Your task to perform on an android device: Clear all items from cart on walmart.com. Add "logitech g903" to the cart on walmart.com, then select checkout. Image 0: 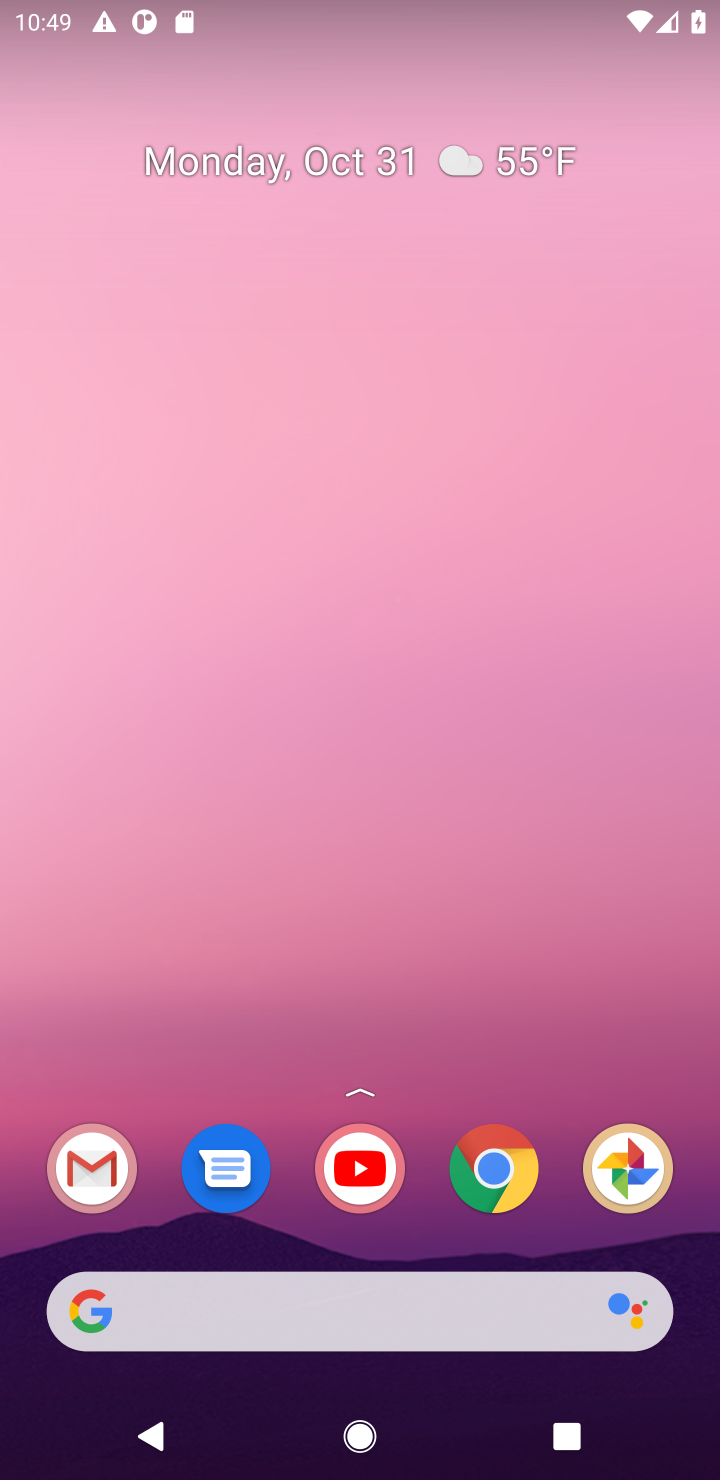
Step 0: click (501, 1178)
Your task to perform on an android device: Clear all items from cart on walmart.com. Add "logitech g903" to the cart on walmart.com, then select checkout. Image 1: 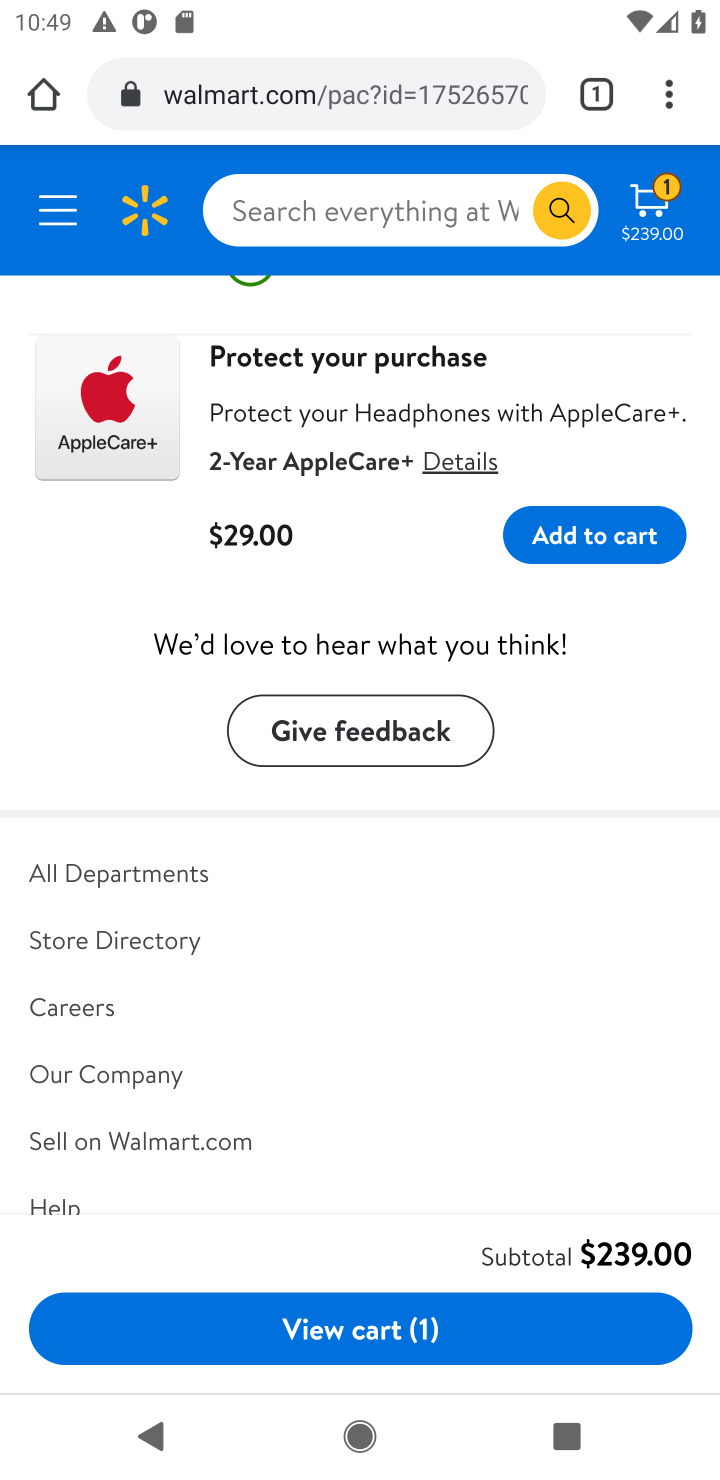
Step 1: click (654, 205)
Your task to perform on an android device: Clear all items from cart on walmart.com. Add "logitech g903" to the cart on walmart.com, then select checkout. Image 2: 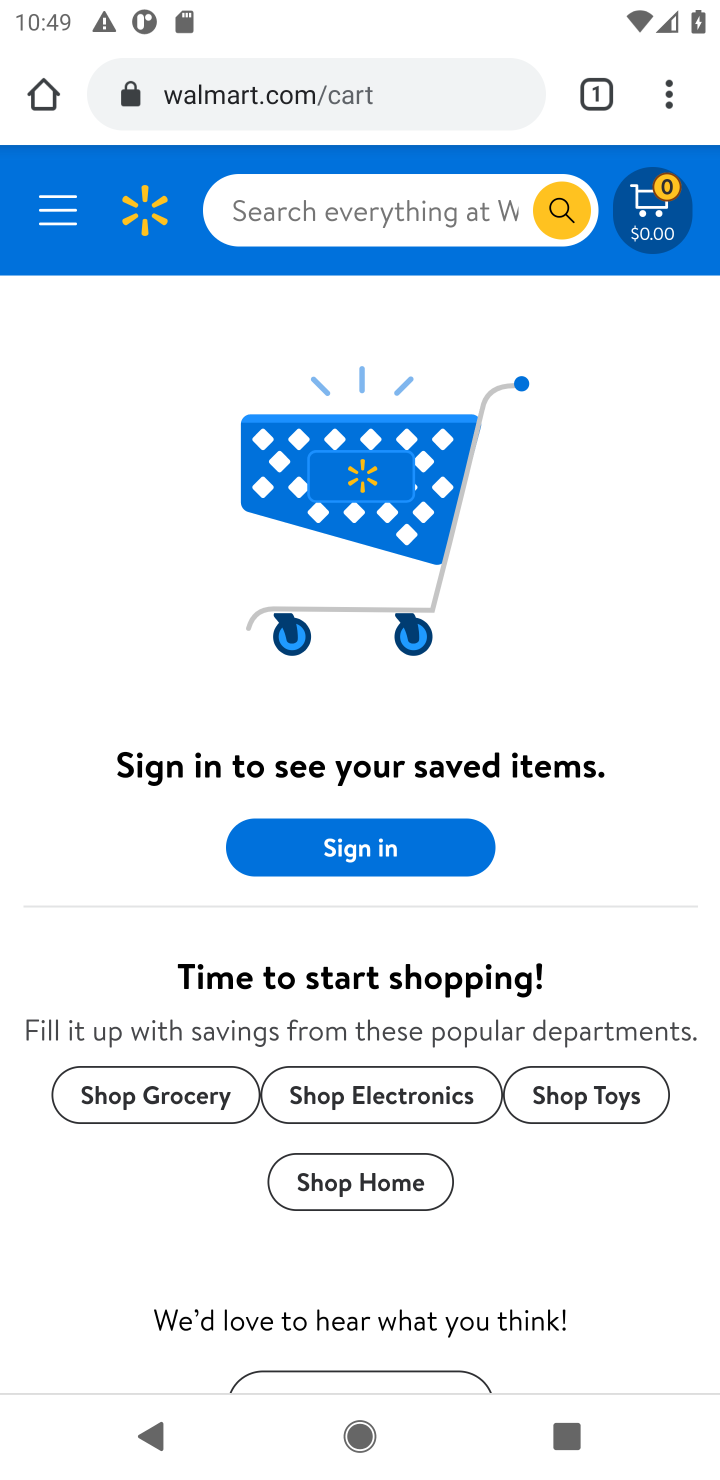
Step 2: click (409, 203)
Your task to perform on an android device: Clear all items from cart on walmart.com. Add "logitech g903" to the cart on walmart.com, then select checkout. Image 3: 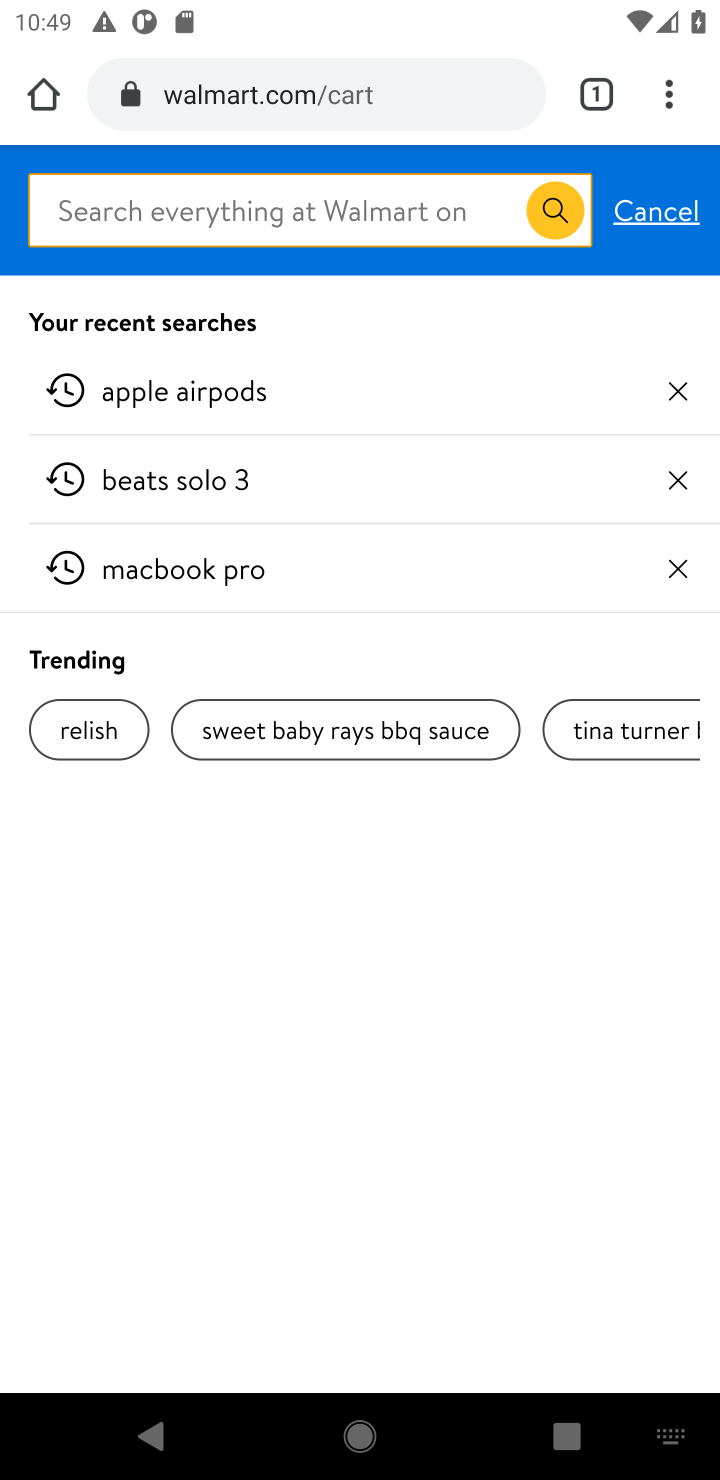
Step 3: type "logitech g903"
Your task to perform on an android device: Clear all items from cart on walmart.com. Add "logitech g903" to the cart on walmart.com, then select checkout. Image 4: 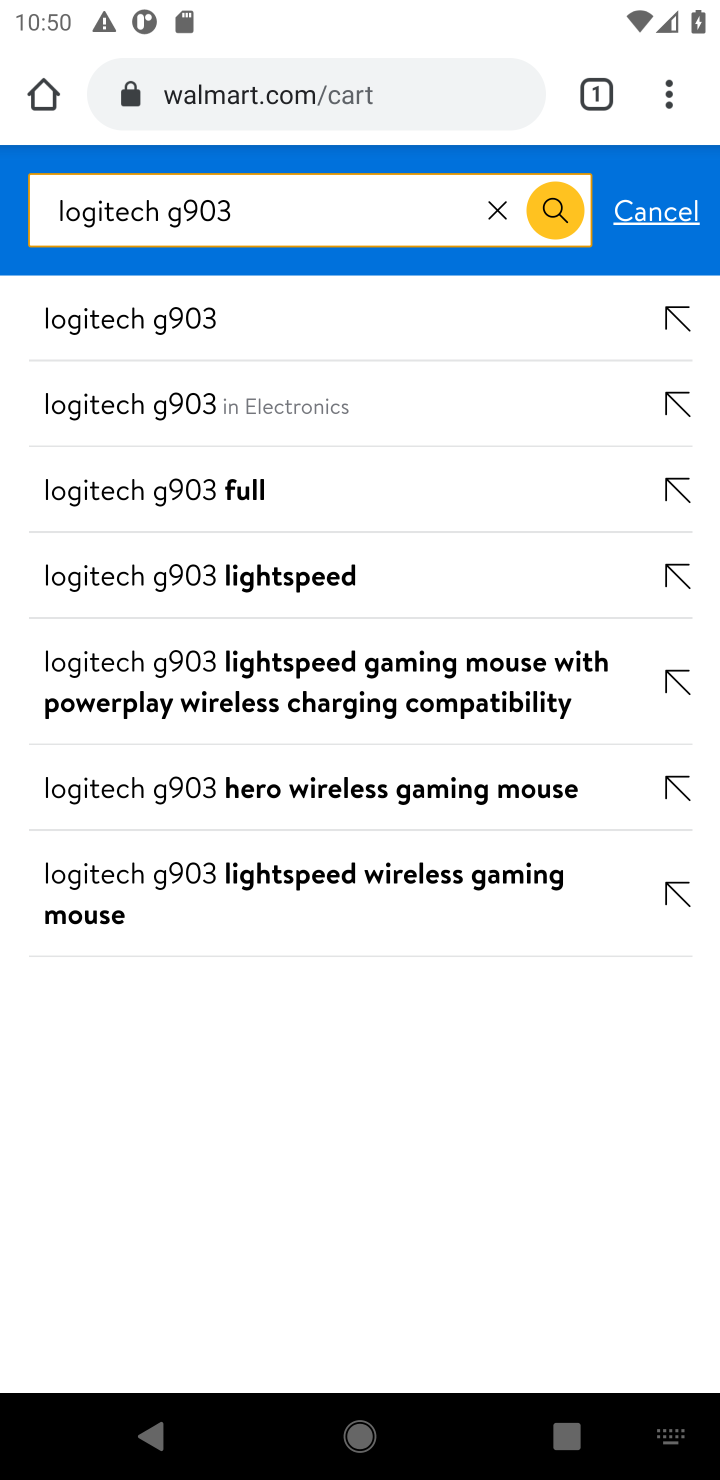
Step 4: press enter
Your task to perform on an android device: Clear all items from cart on walmart.com. Add "logitech g903" to the cart on walmart.com, then select checkout. Image 5: 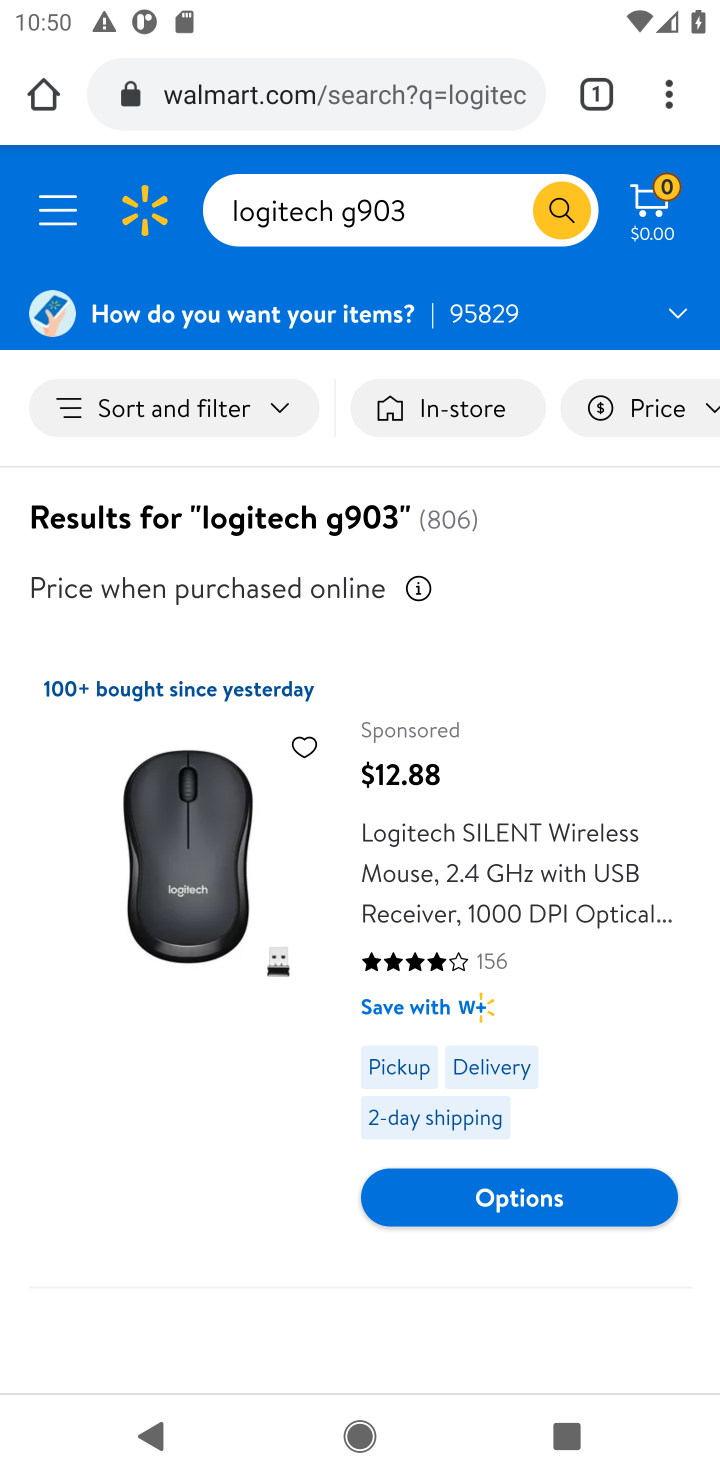
Step 5: drag from (550, 786) to (543, 473)
Your task to perform on an android device: Clear all items from cart on walmart.com. Add "logitech g903" to the cart on walmart.com, then select checkout. Image 6: 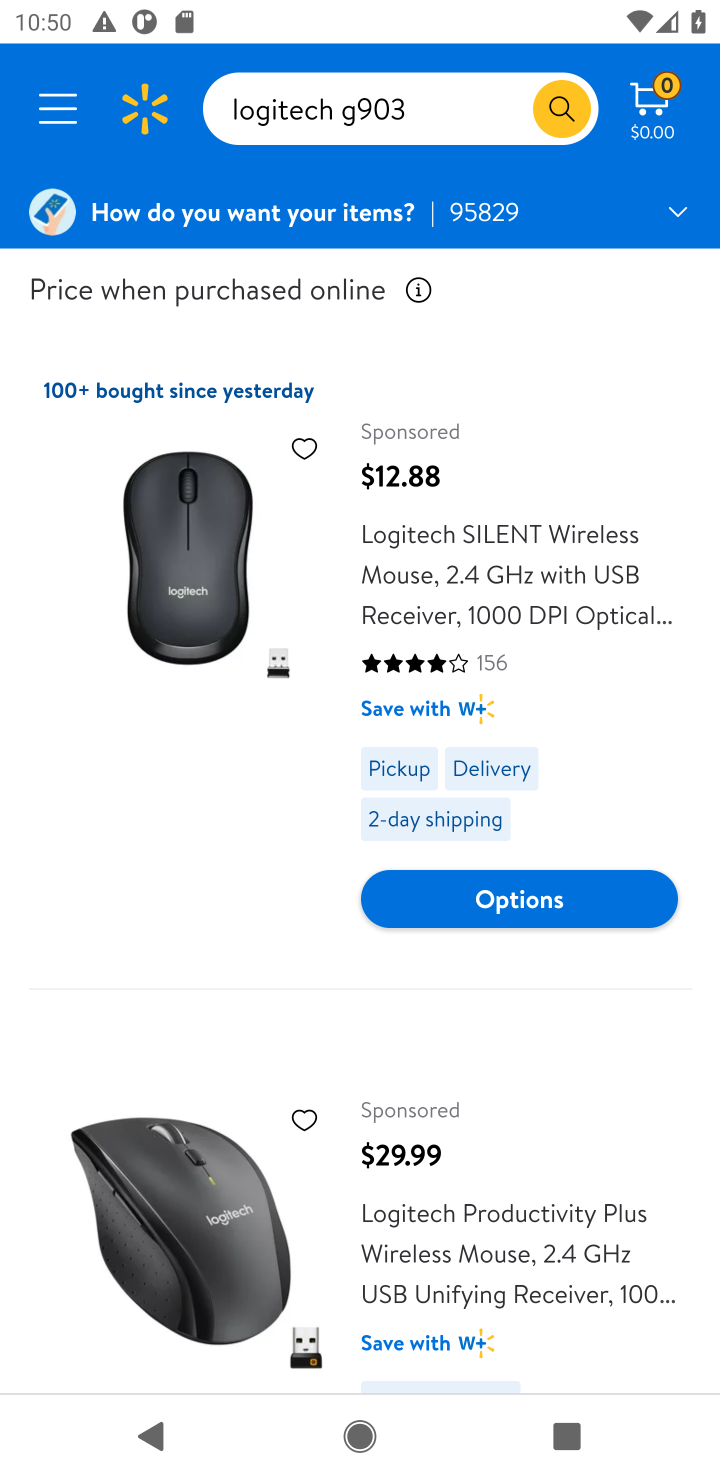
Step 6: click (225, 544)
Your task to perform on an android device: Clear all items from cart on walmart.com. Add "logitech g903" to the cart on walmart.com, then select checkout. Image 7: 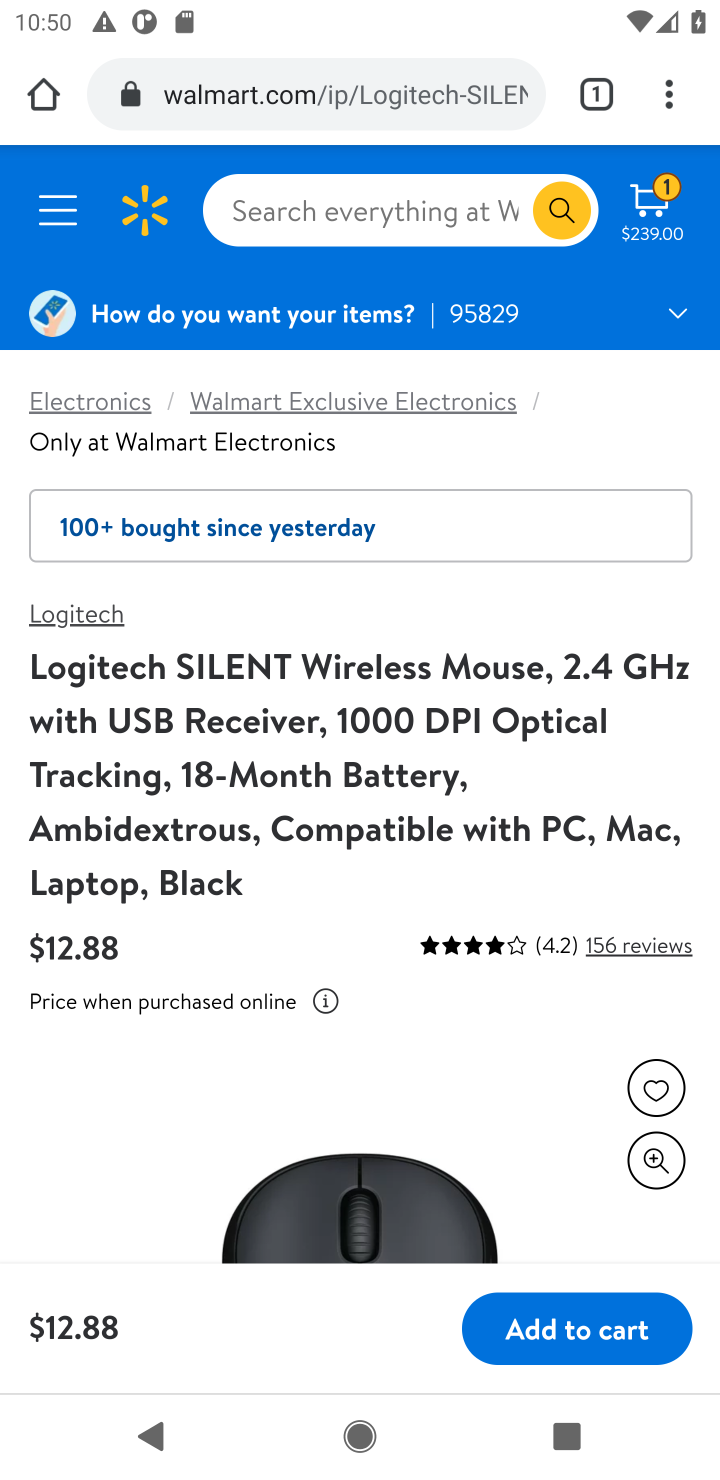
Step 7: press back button
Your task to perform on an android device: Clear all items from cart on walmart.com. Add "logitech g903" to the cart on walmart.com, then select checkout. Image 8: 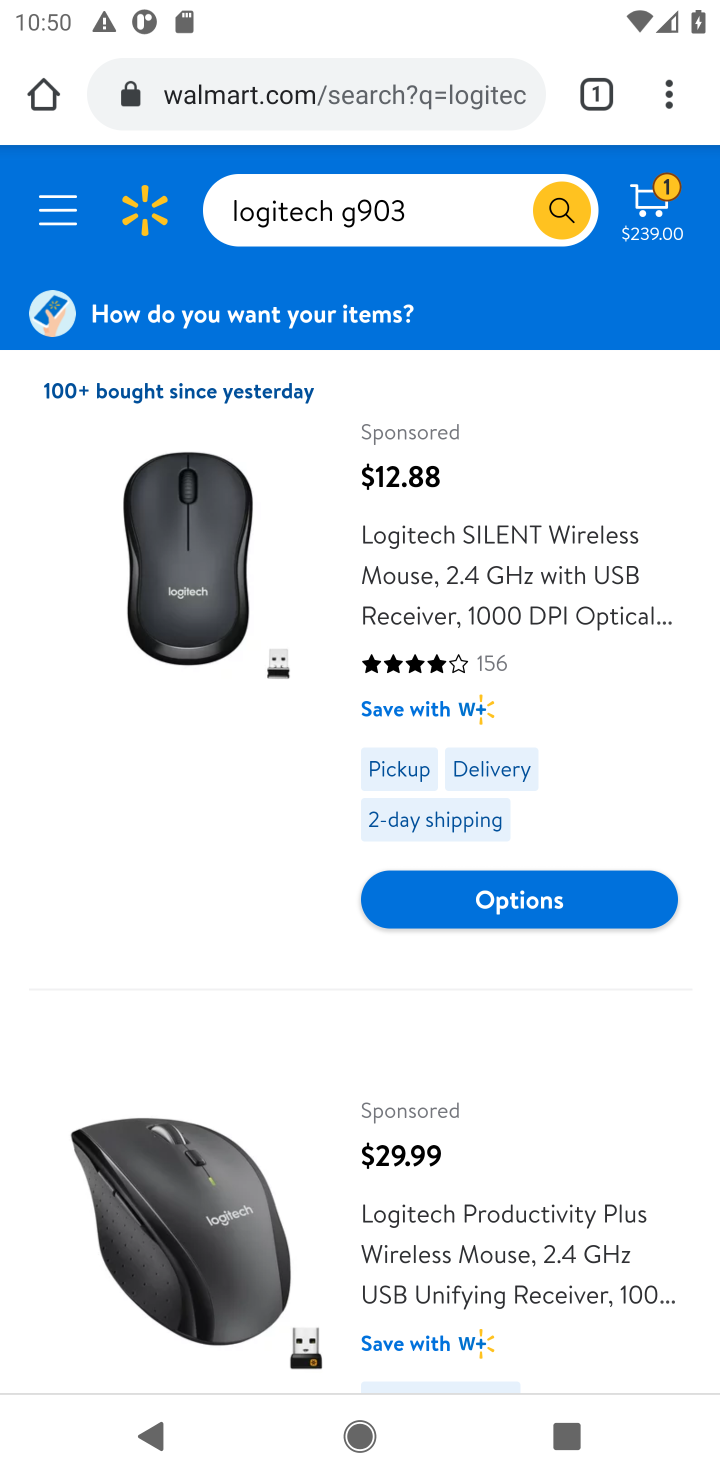
Step 8: drag from (543, 1082) to (441, 116)
Your task to perform on an android device: Clear all items from cart on walmart.com. Add "logitech g903" to the cart on walmart.com, then select checkout. Image 9: 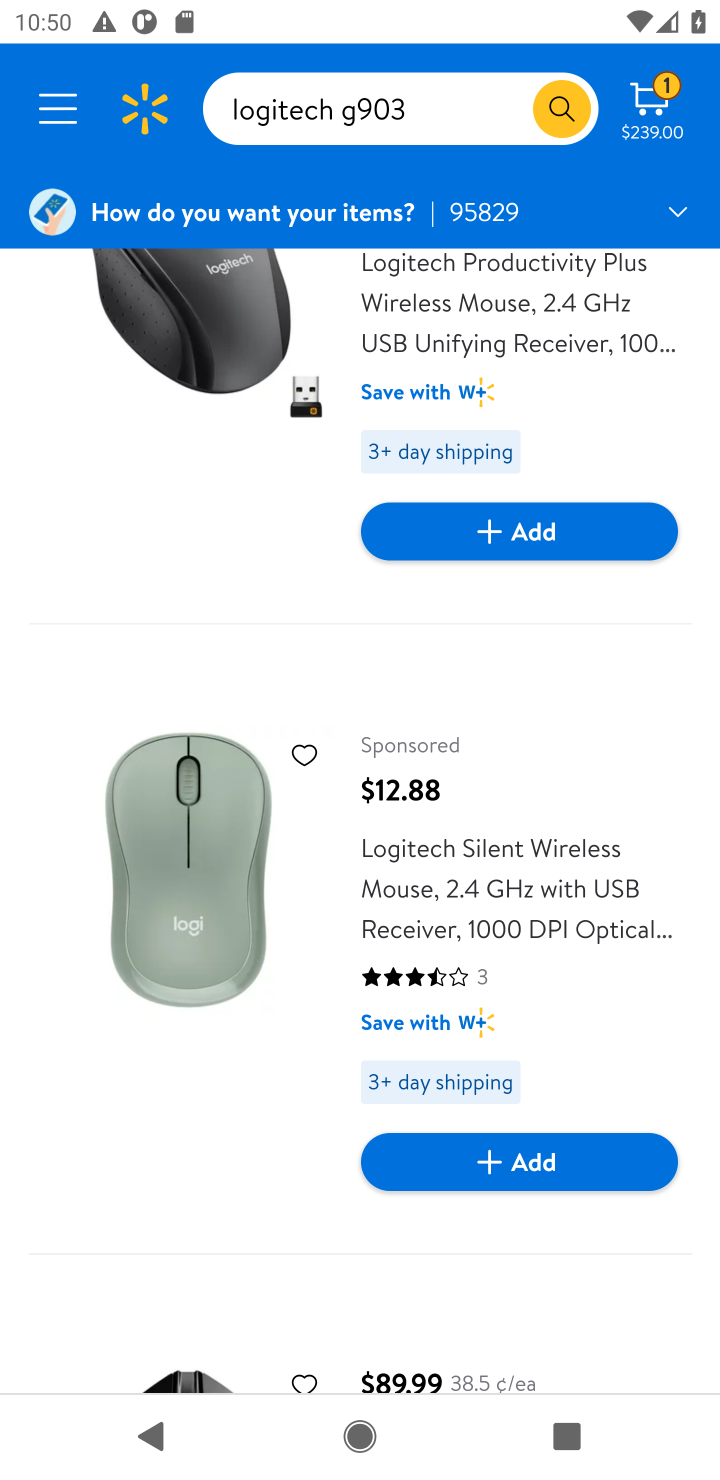
Step 9: drag from (590, 999) to (529, 590)
Your task to perform on an android device: Clear all items from cart on walmart.com. Add "logitech g903" to the cart on walmart.com, then select checkout. Image 10: 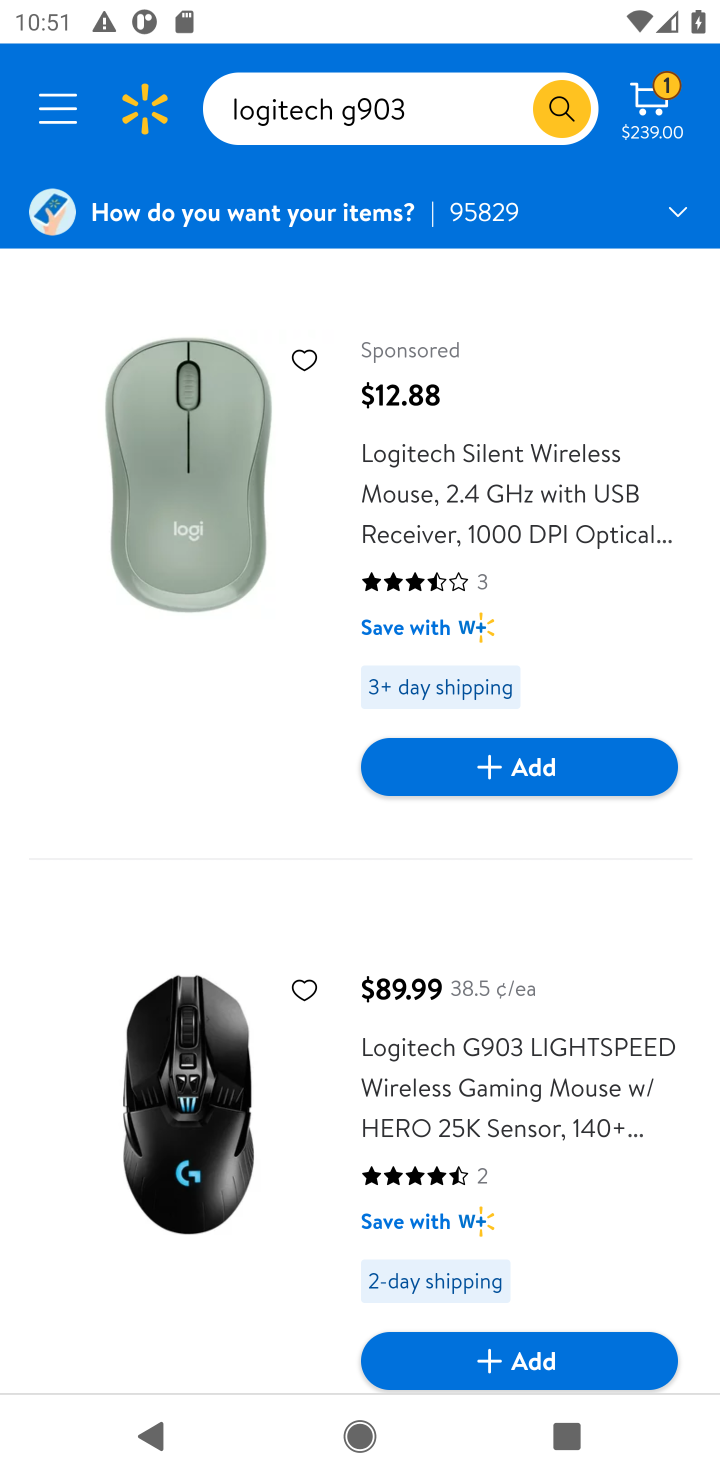
Step 10: click (223, 1121)
Your task to perform on an android device: Clear all items from cart on walmart.com. Add "logitech g903" to the cart on walmart.com, then select checkout. Image 11: 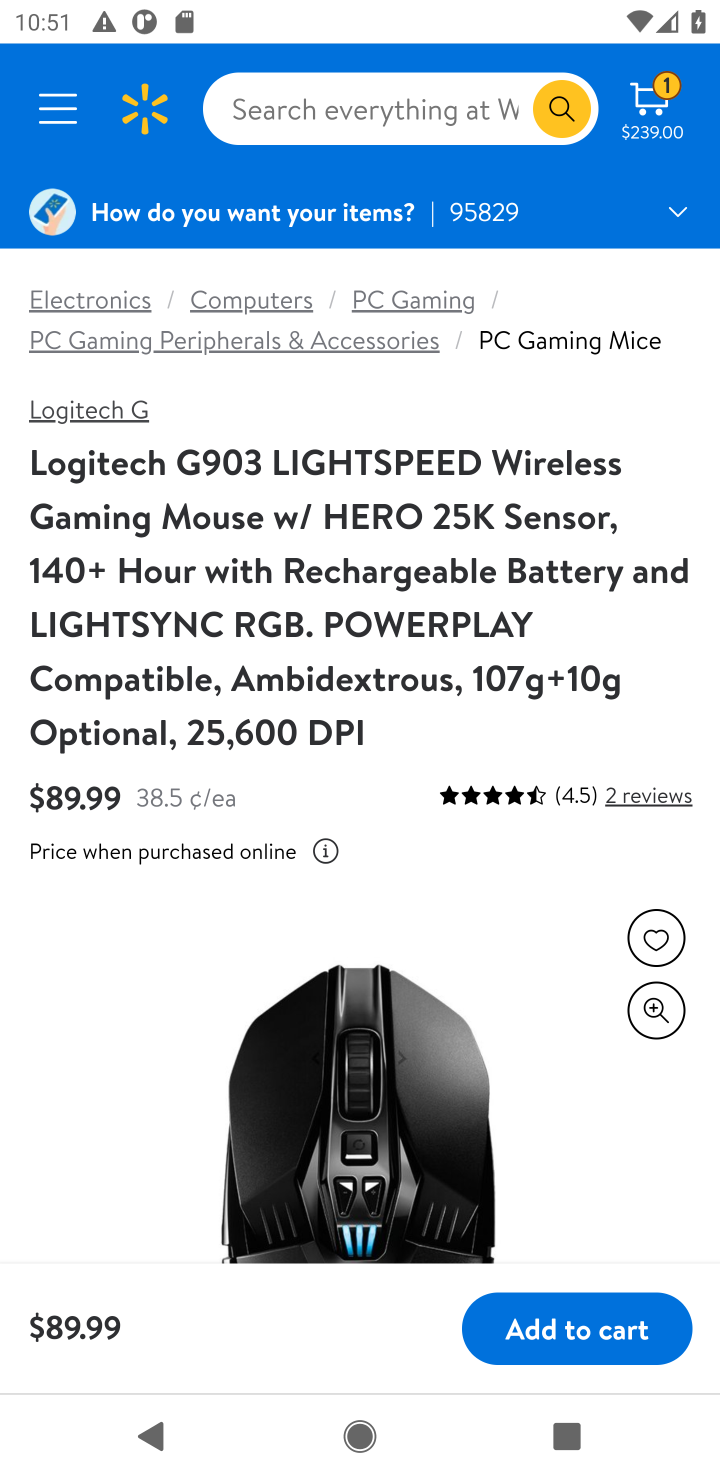
Step 11: click (538, 1327)
Your task to perform on an android device: Clear all items from cart on walmart.com. Add "logitech g903" to the cart on walmart.com, then select checkout. Image 12: 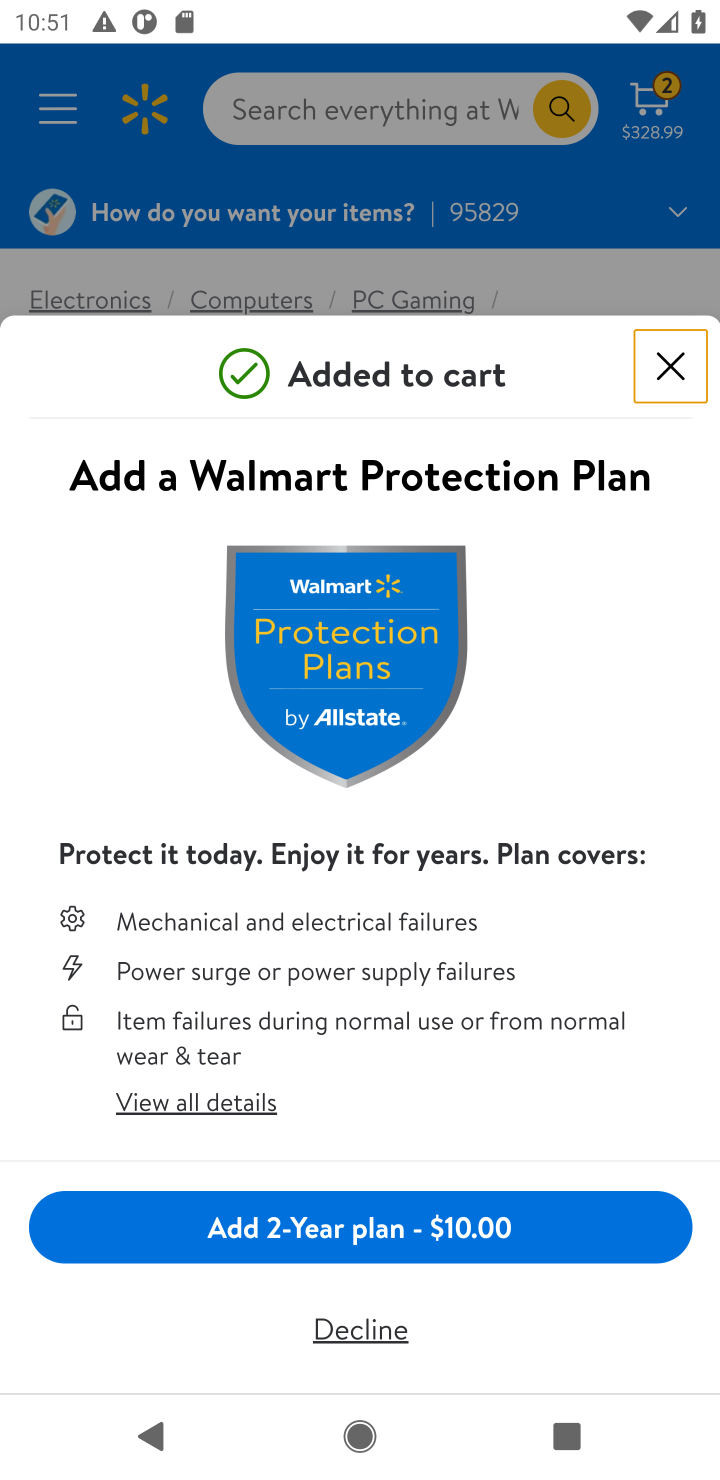
Step 12: click (352, 1327)
Your task to perform on an android device: Clear all items from cart on walmart.com. Add "logitech g903" to the cart on walmart.com, then select checkout. Image 13: 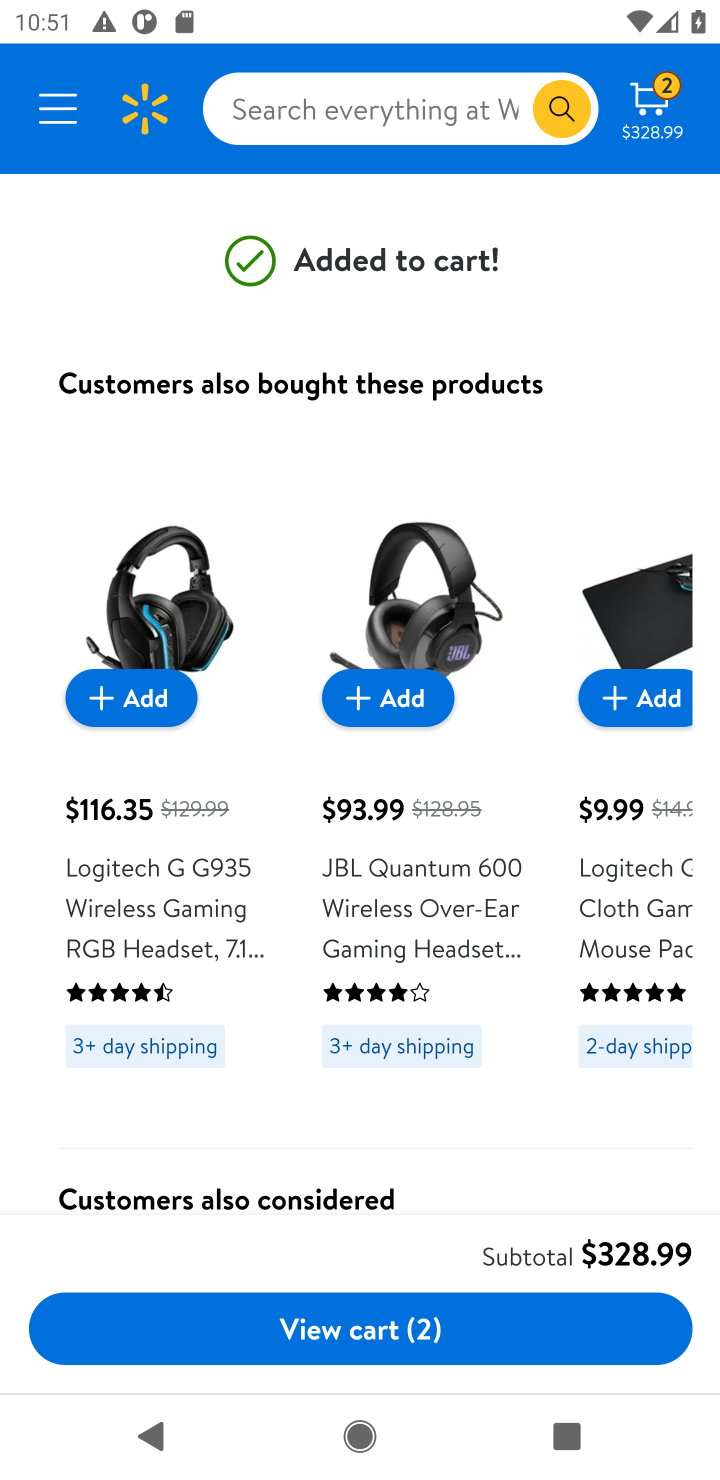
Step 13: click (417, 1329)
Your task to perform on an android device: Clear all items from cart on walmart.com. Add "logitech g903" to the cart on walmart.com, then select checkout. Image 14: 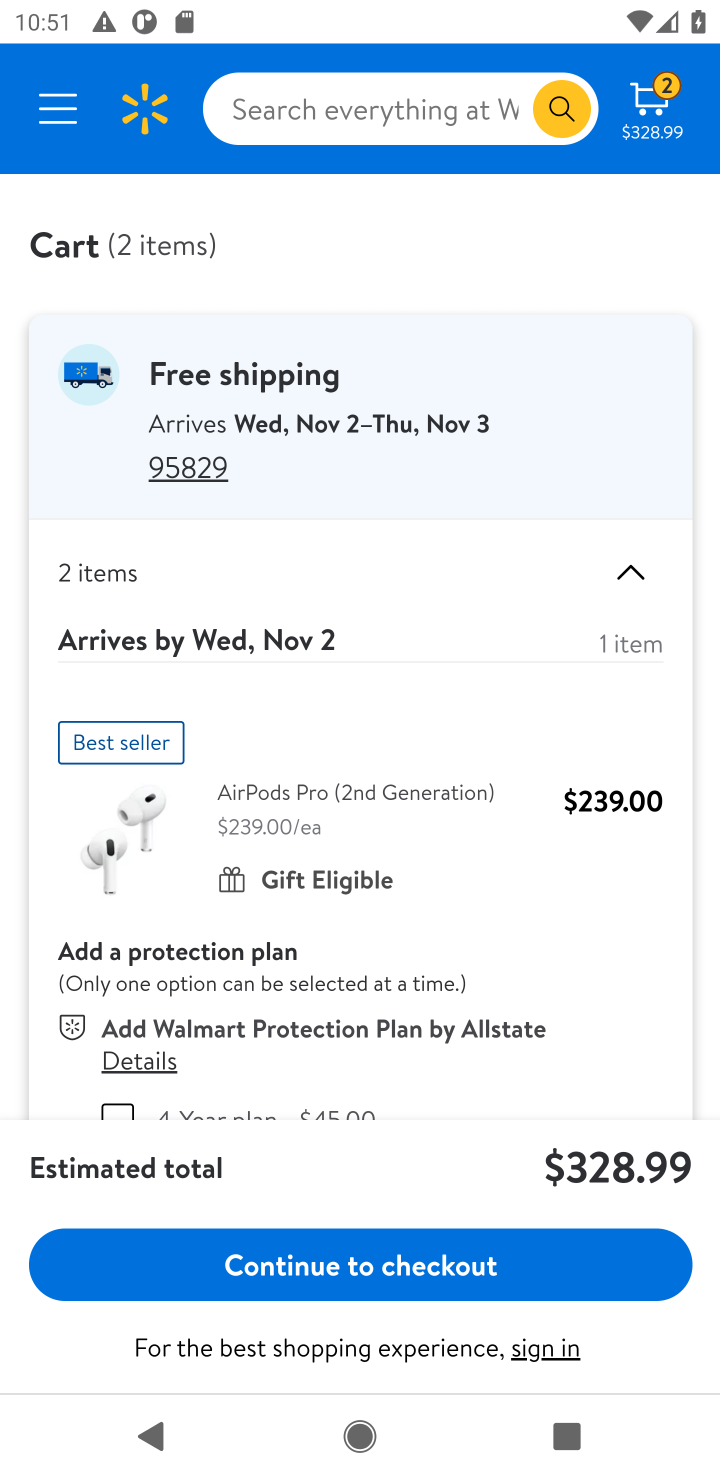
Step 14: click (438, 1269)
Your task to perform on an android device: Clear all items from cart on walmart.com. Add "logitech g903" to the cart on walmart.com, then select checkout. Image 15: 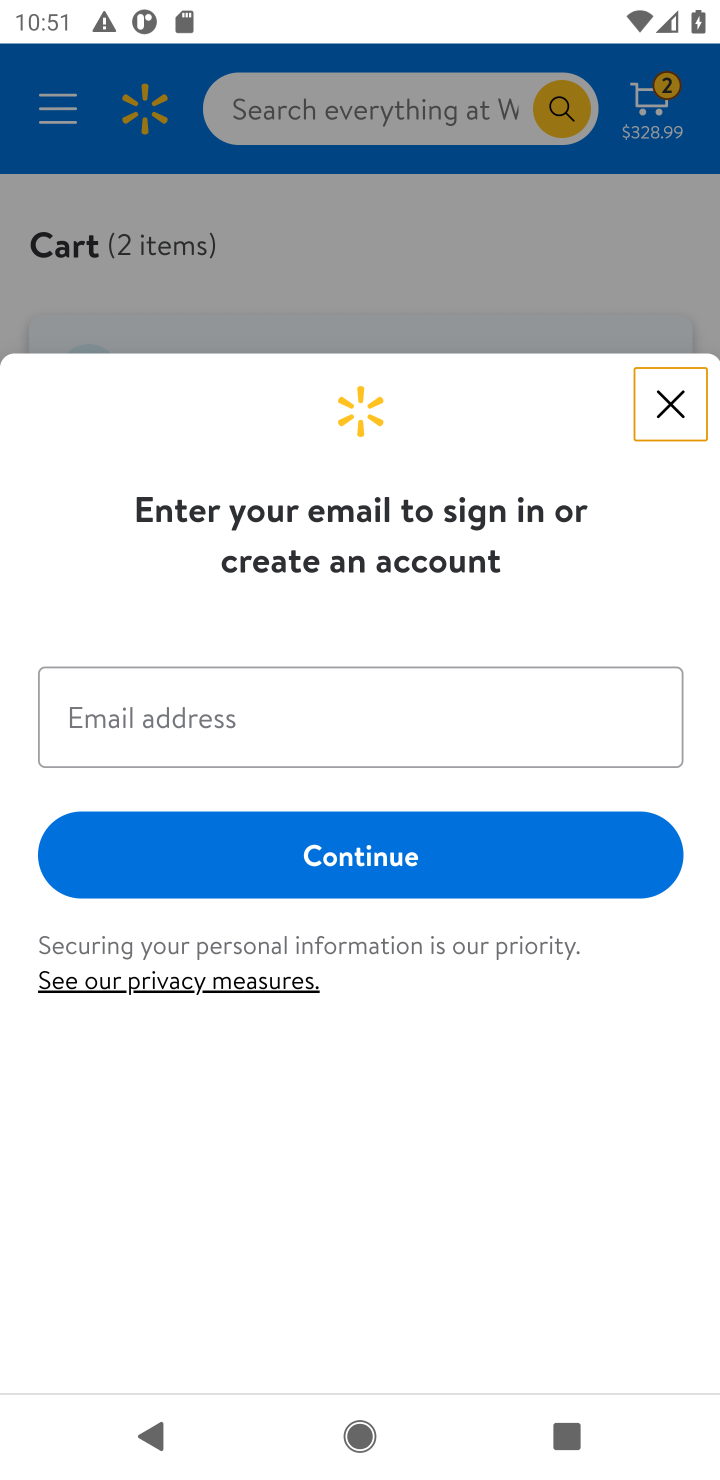
Step 15: task complete